Your task to perform on an android device: install app "Google Chat" Image 0: 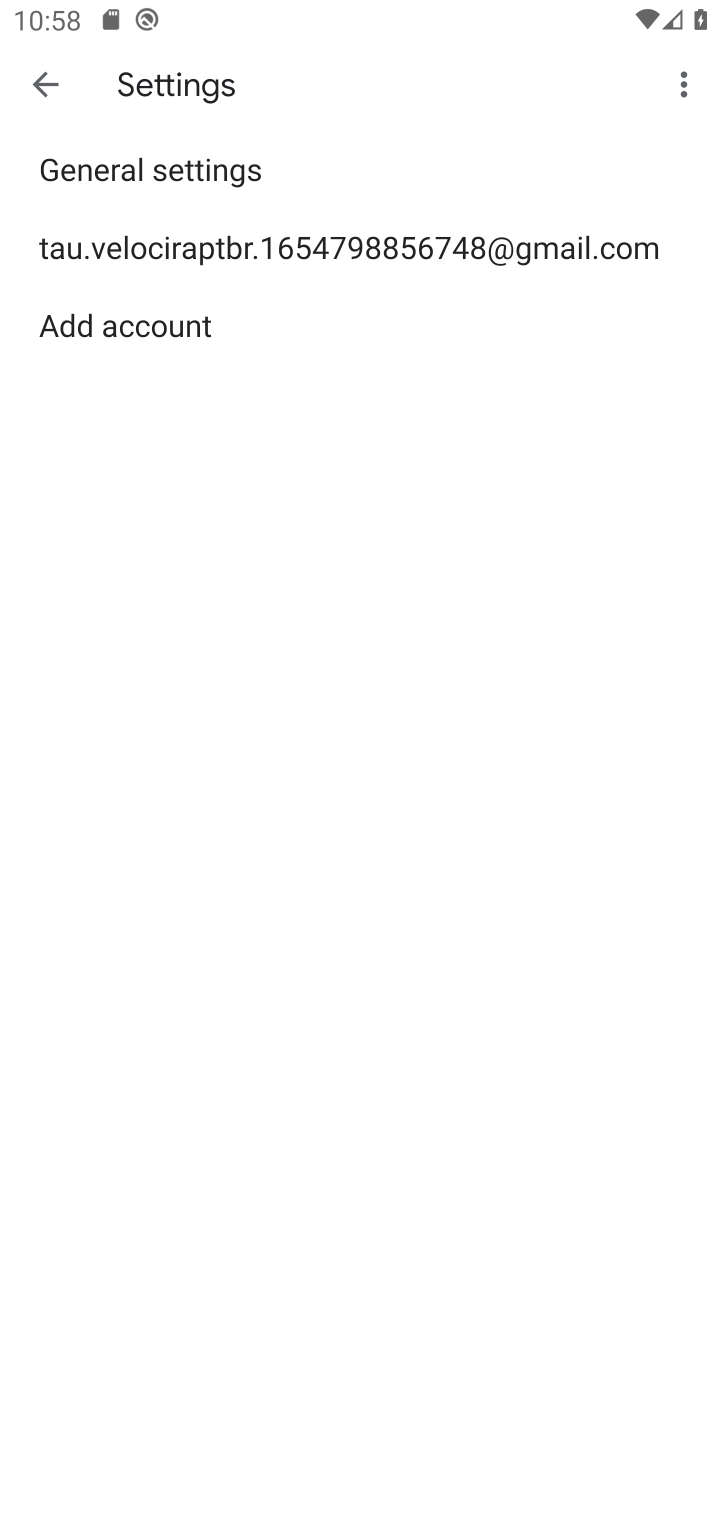
Step 0: press home button
Your task to perform on an android device: install app "Google Chat" Image 1: 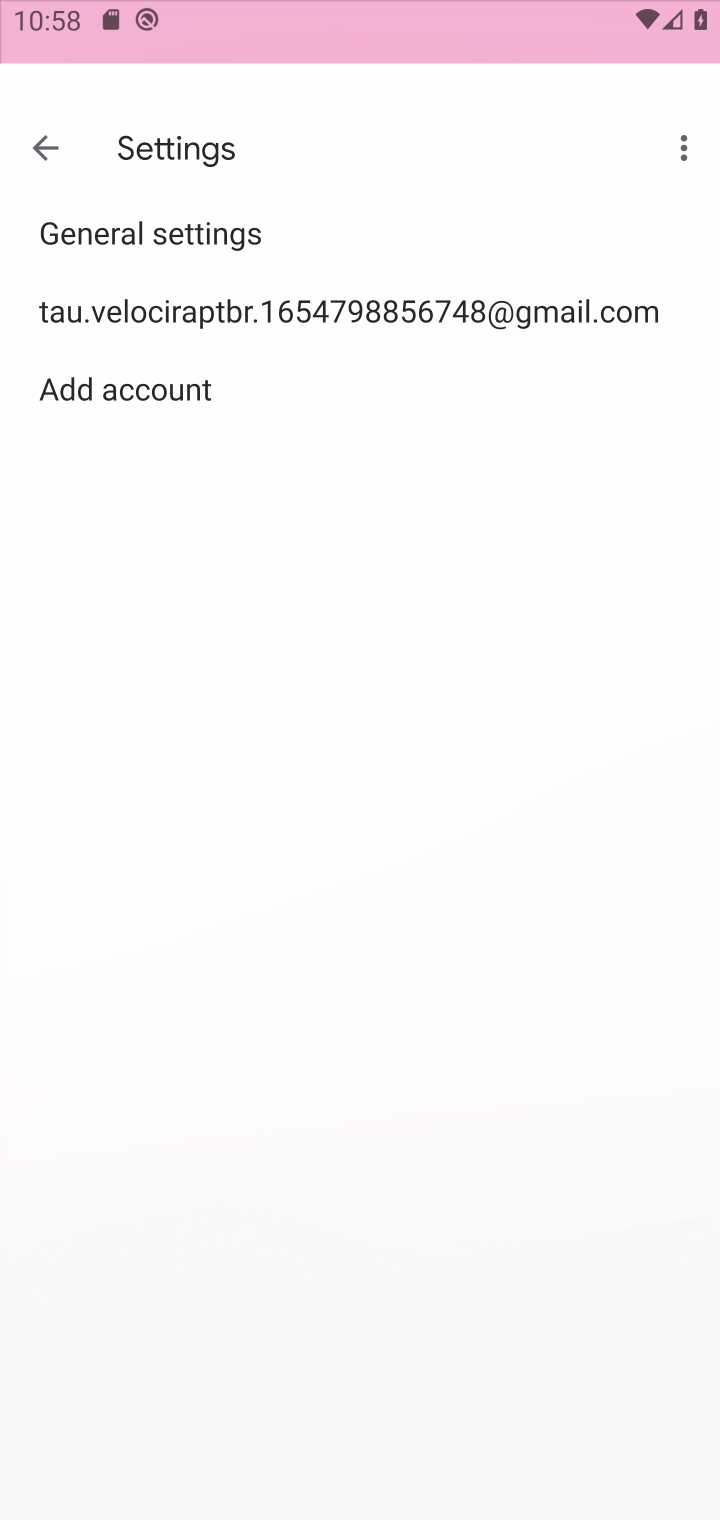
Step 1: press home button
Your task to perform on an android device: install app "Google Chat" Image 2: 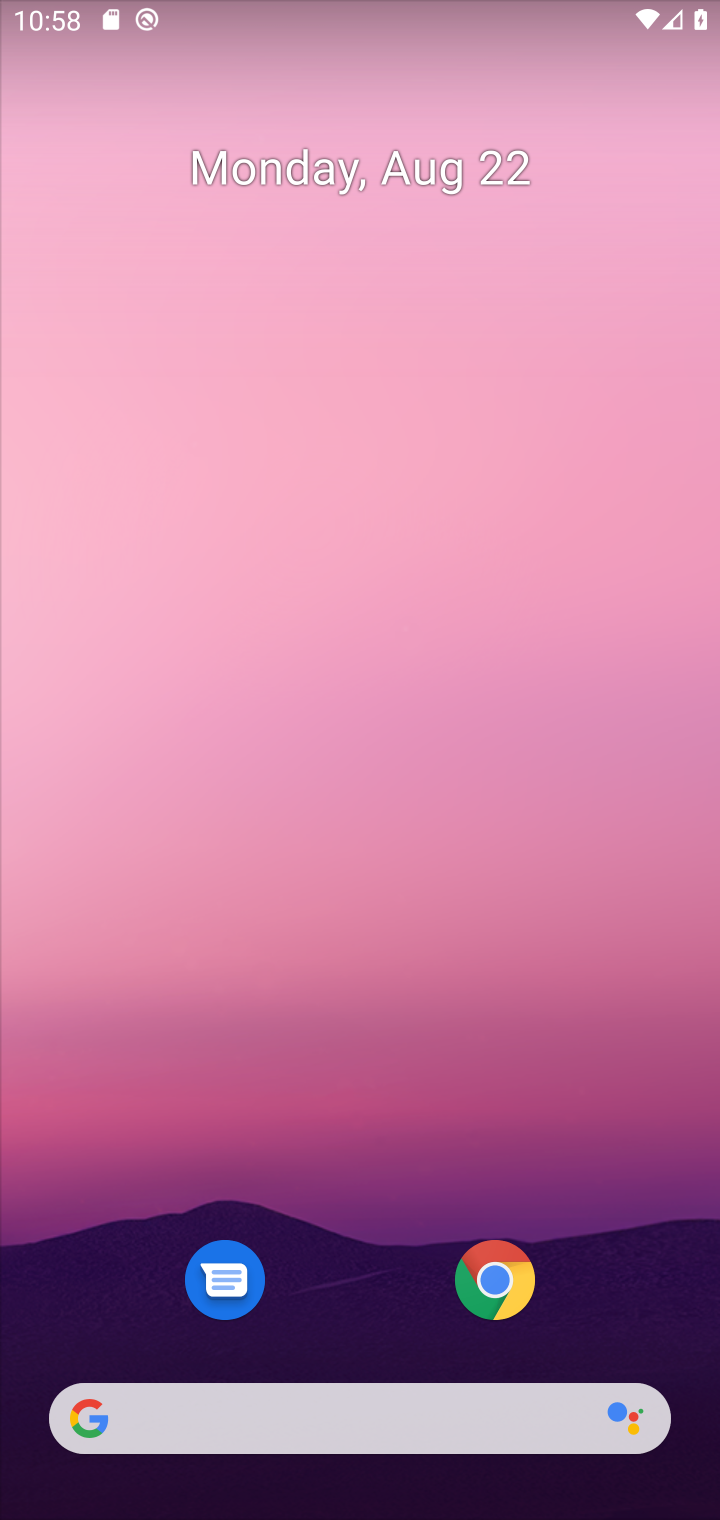
Step 2: drag from (360, 1296) to (321, 211)
Your task to perform on an android device: install app "Google Chat" Image 3: 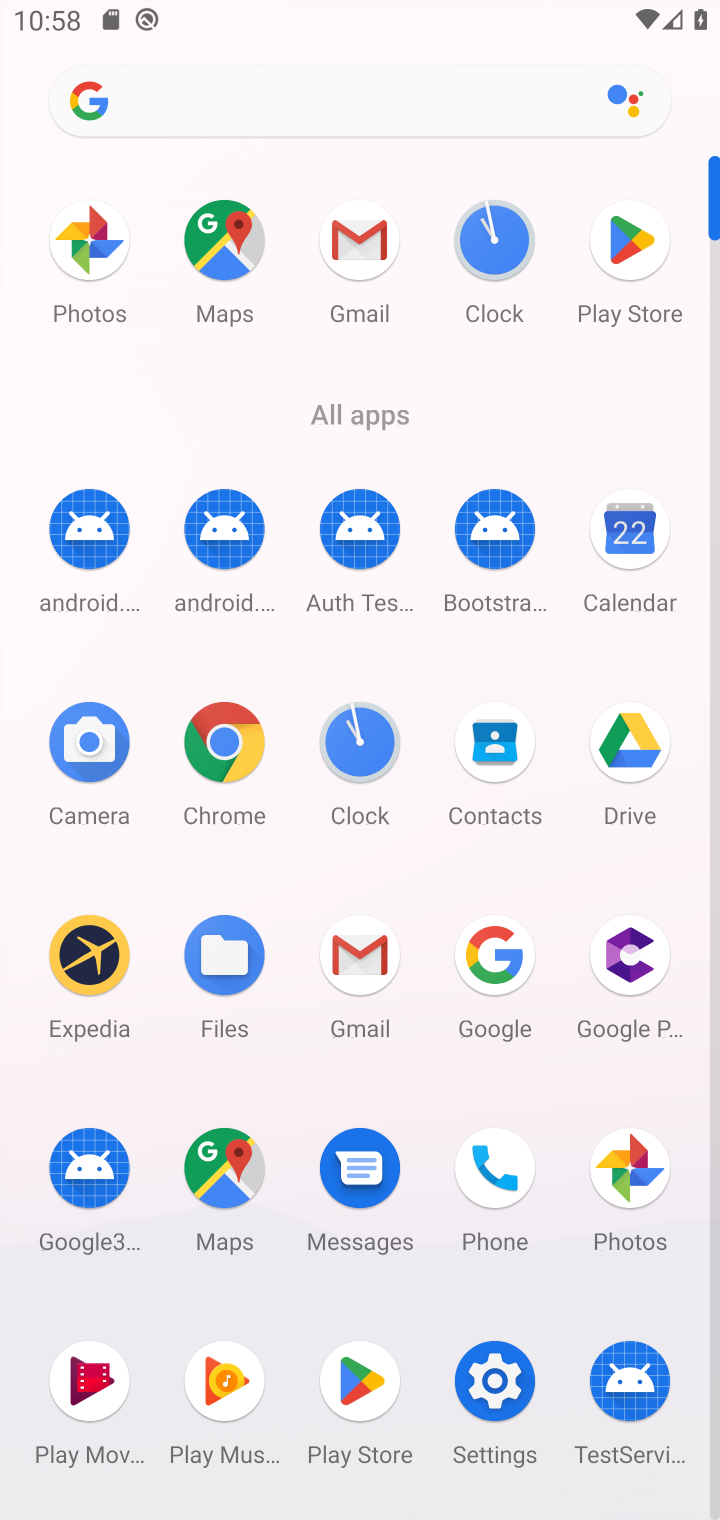
Step 3: click (628, 248)
Your task to perform on an android device: install app "Google Chat" Image 4: 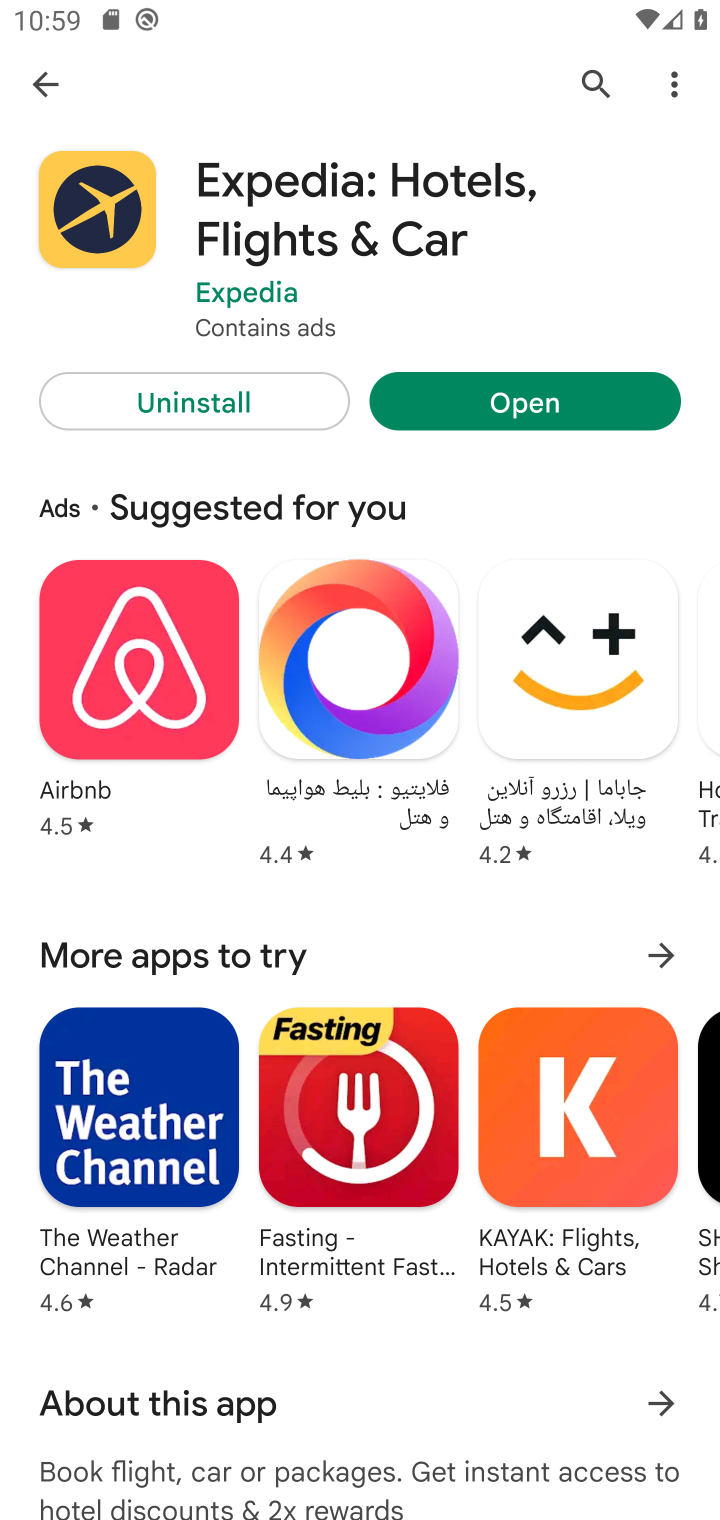
Step 4: click (628, 248)
Your task to perform on an android device: install app "Google Chat" Image 5: 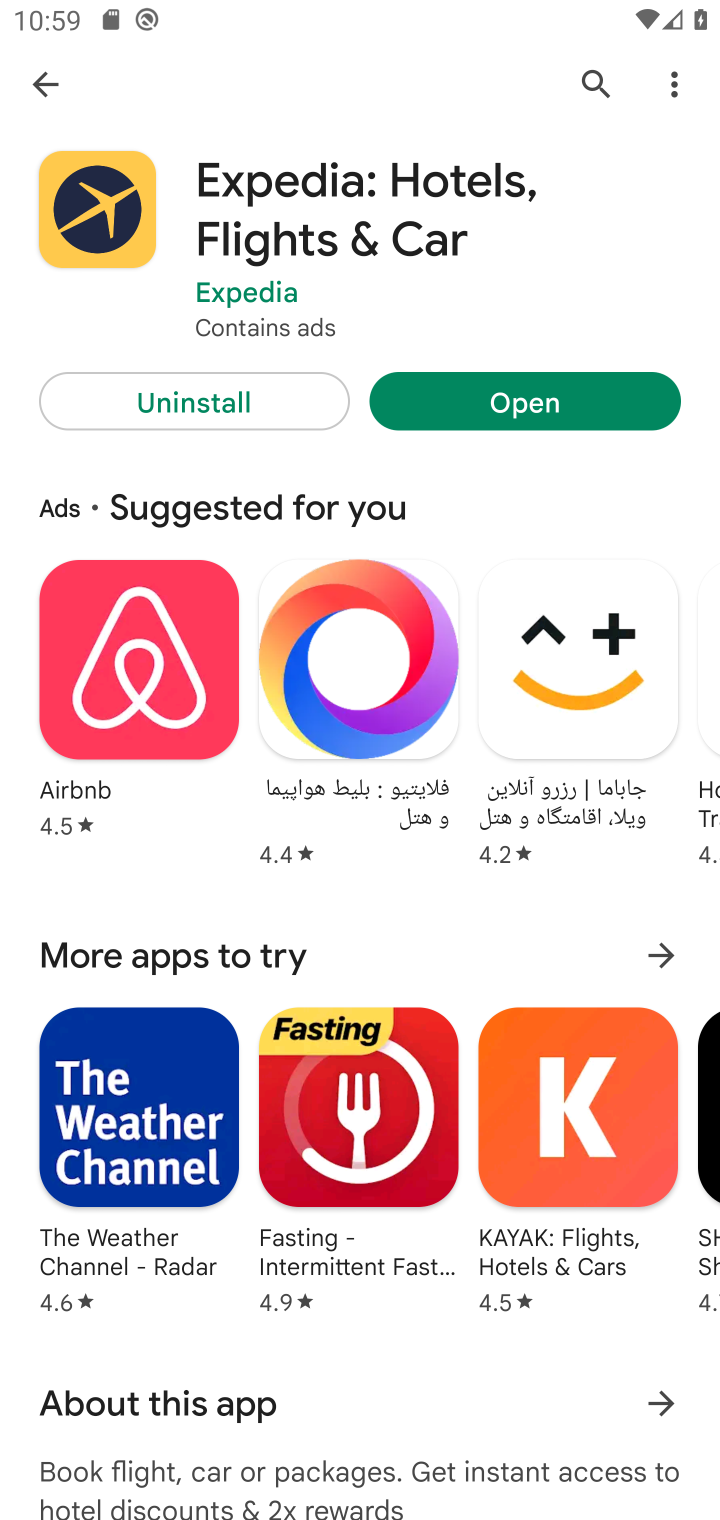
Step 5: click (628, 248)
Your task to perform on an android device: install app "Google Chat" Image 6: 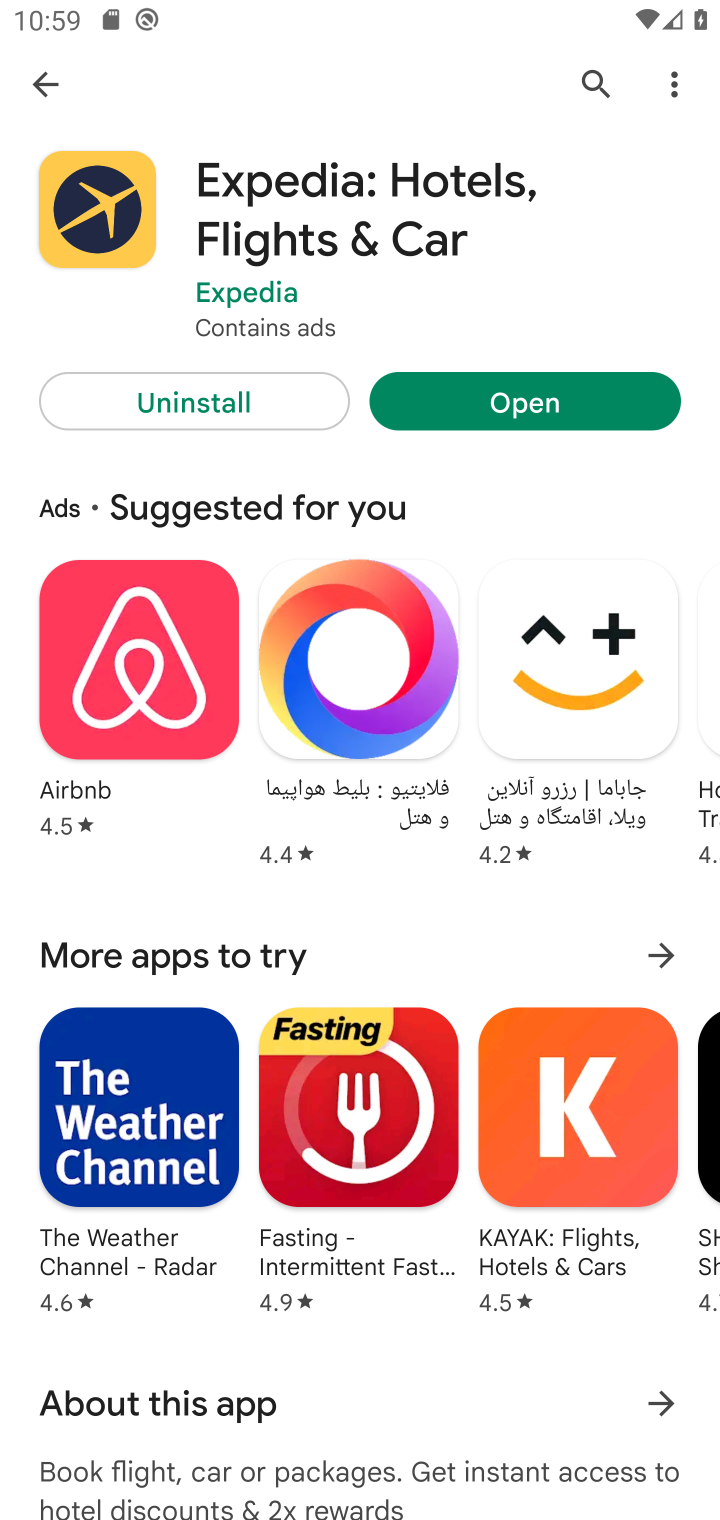
Step 6: click (602, 82)
Your task to perform on an android device: install app "Google Chat" Image 7: 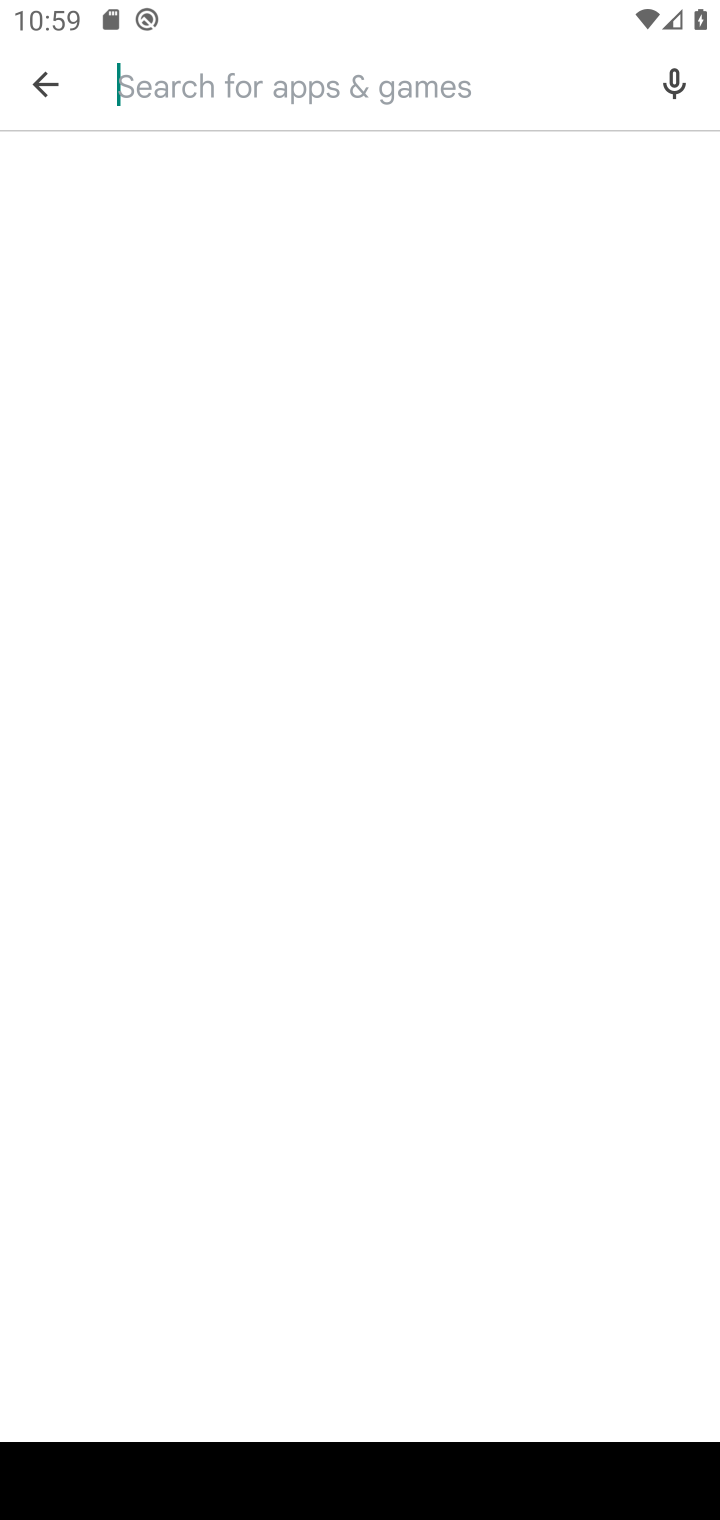
Step 7: type "Google Chat"
Your task to perform on an android device: install app "Google Chat" Image 8: 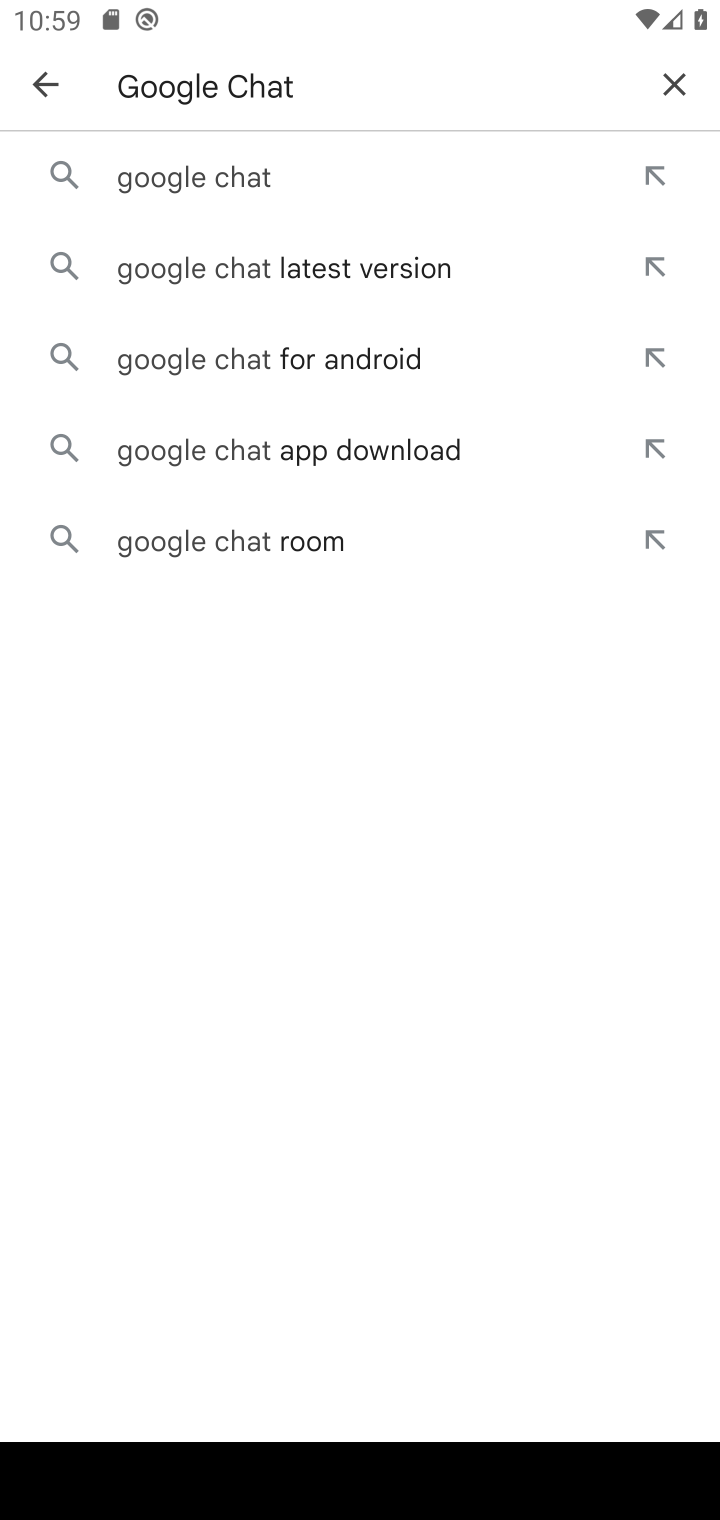
Step 8: click (316, 169)
Your task to perform on an android device: install app "Google Chat" Image 9: 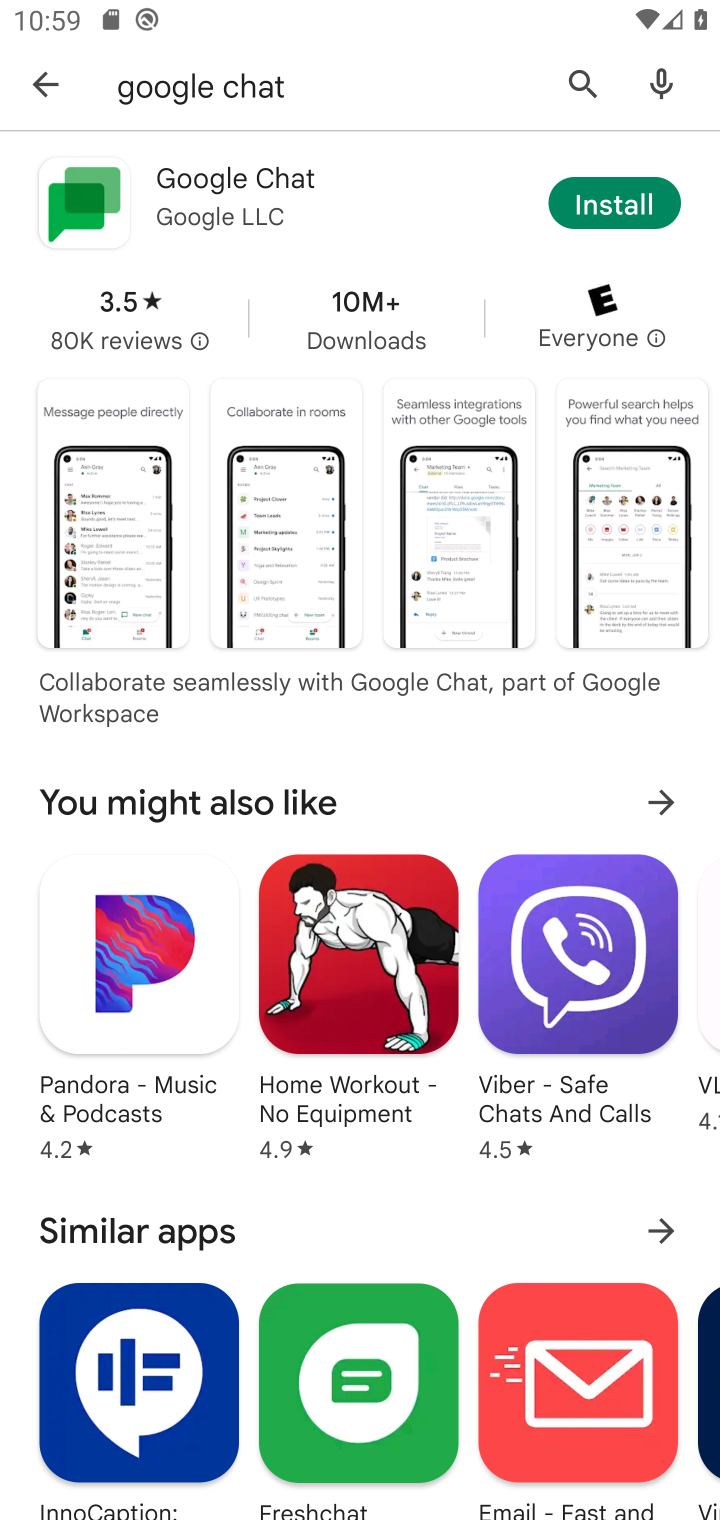
Step 9: click (603, 200)
Your task to perform on an android device: install app "Google Chat" Image 10: 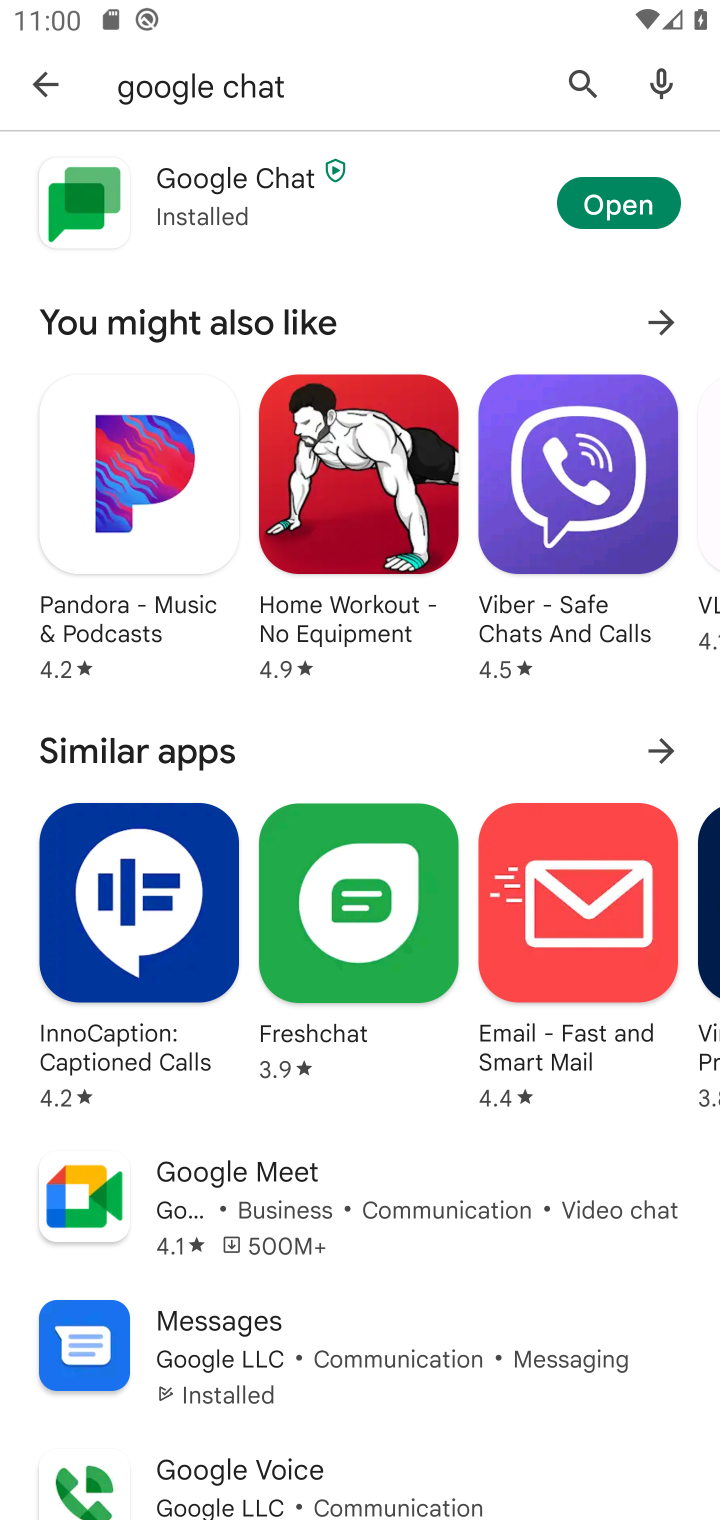
Step 10: click (603, 200)
Your task to perform on an android device: install app "Google Chat" Image 11: 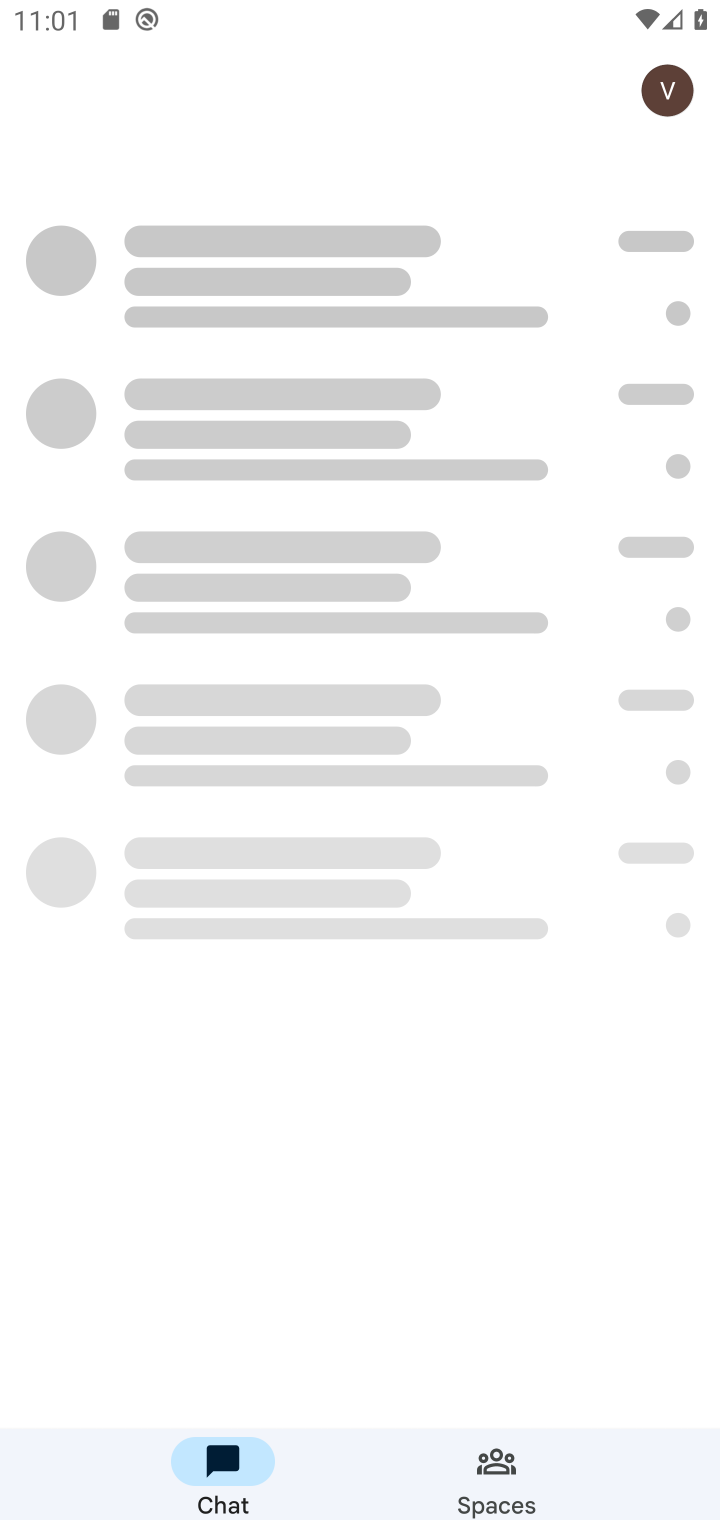
Step 11: task complete